Your task to perform on an android device: check battery use Image 0: 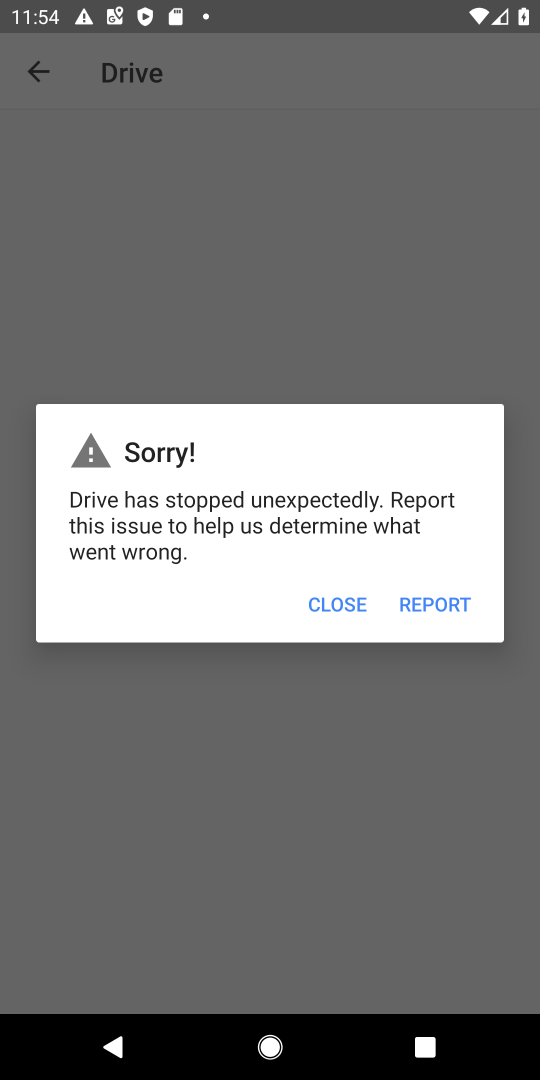
Step 0: press home button
Your task to perform on an android device: check battery use Image 1: 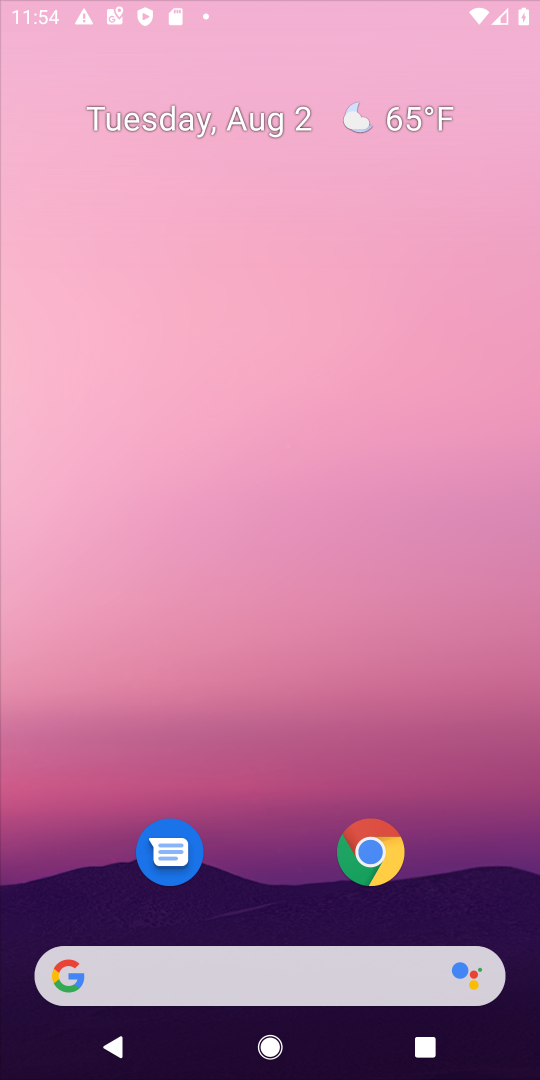
Step 1: drag from (510, 881) to (286, 197)
Your task to perform on an android device: check battery use Image 2: 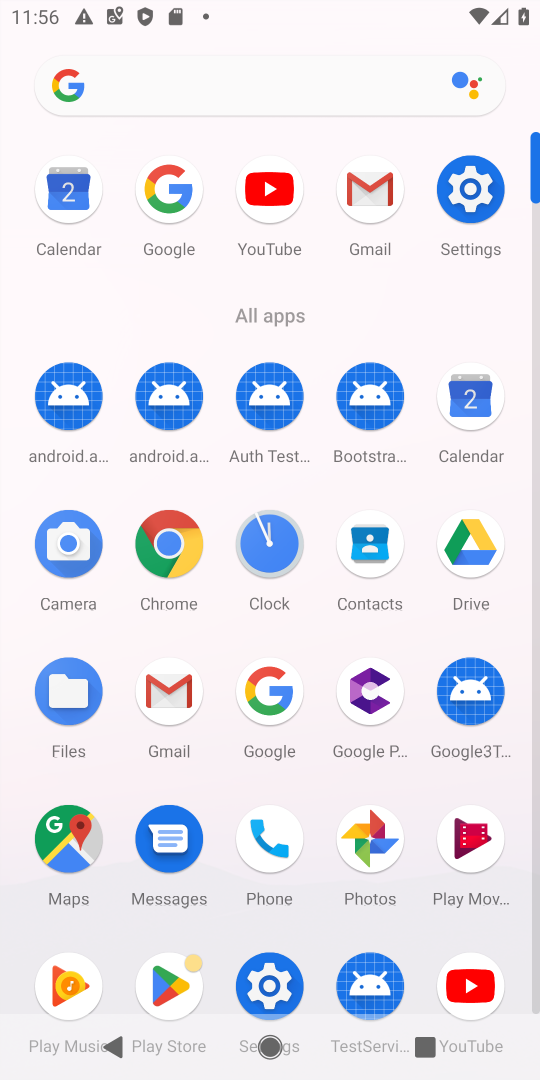
Step 2: click (270, 954)
Your task to perform on an android device: check battery use Image 3: 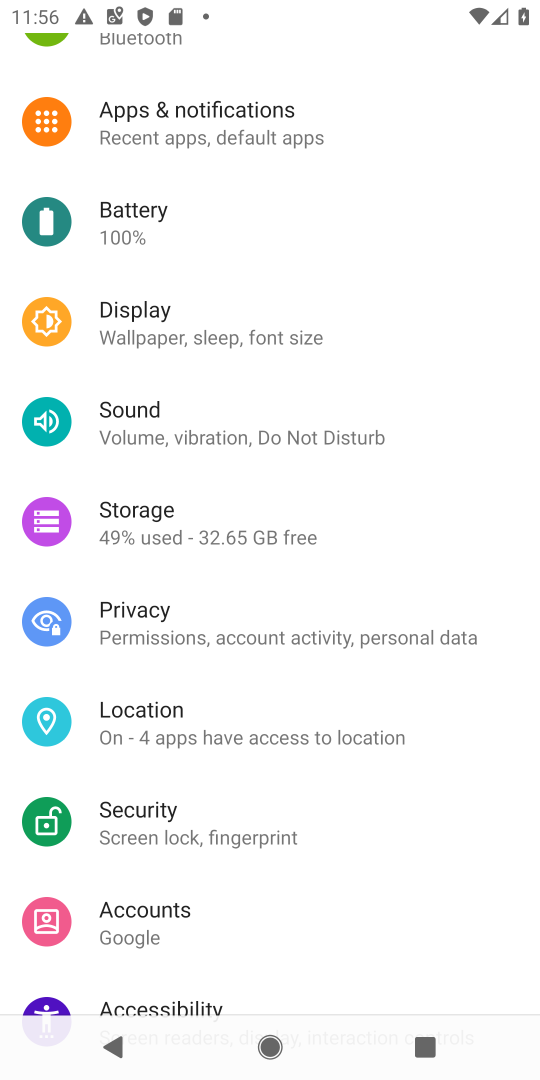
Step 3: click (164, 217)
Your task to perform on an android device: check battery use Image 4: 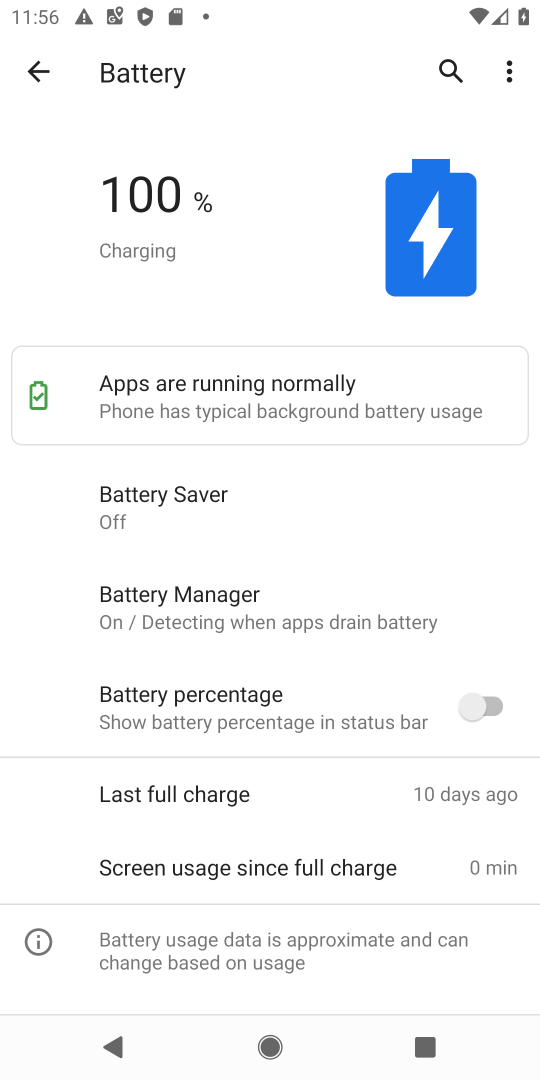
Step 4: click (503, 61)
Your task to perform on an android device: check battery use Image 5: 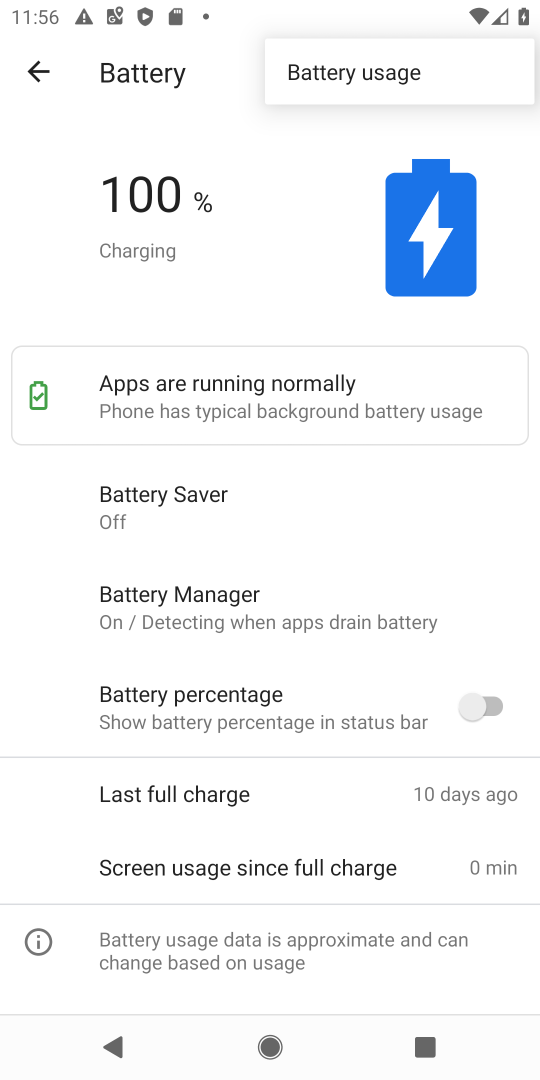
Step 5: click (351, 83)
Your task to perform on an android device: check battery use Image 6: 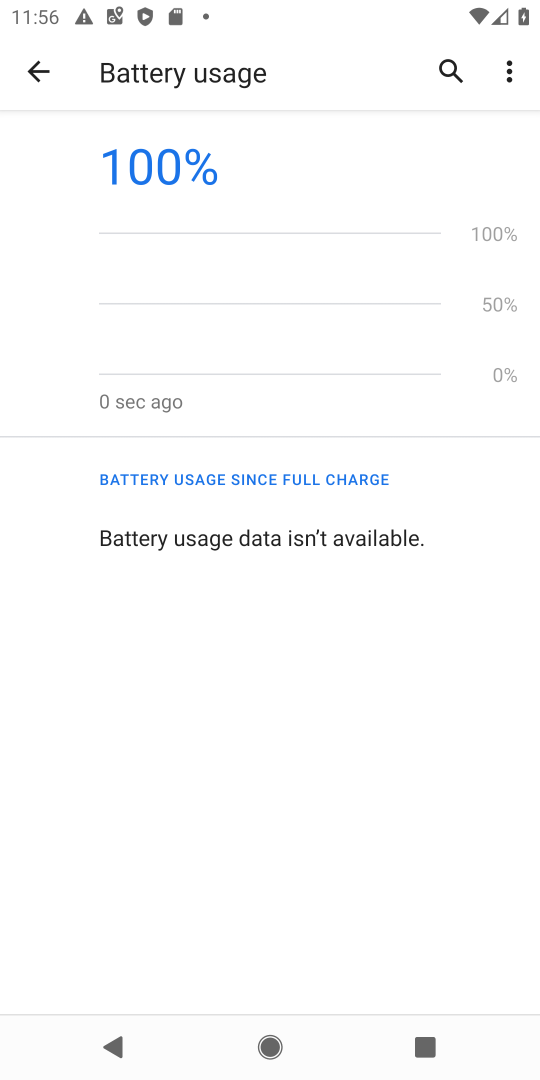
Step 6: task complete